Your task to perform on an android device: Open accessibility settings Image 0: 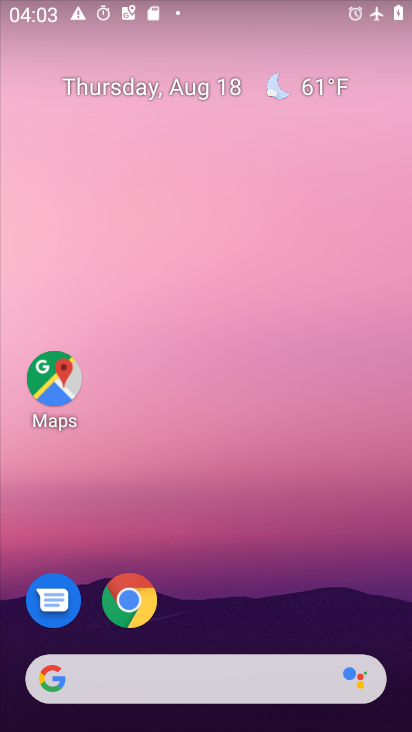
Step 0: press home button
Your task to perform on an android device: Open accessibility settings Image 1: 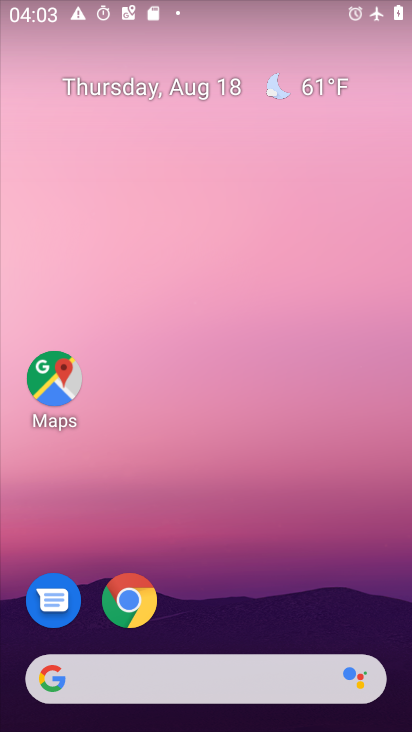
Step 1: drag from (243, 633) to (288, 0)
Your task to perform on an android device: Open accessibility settings Image 2: 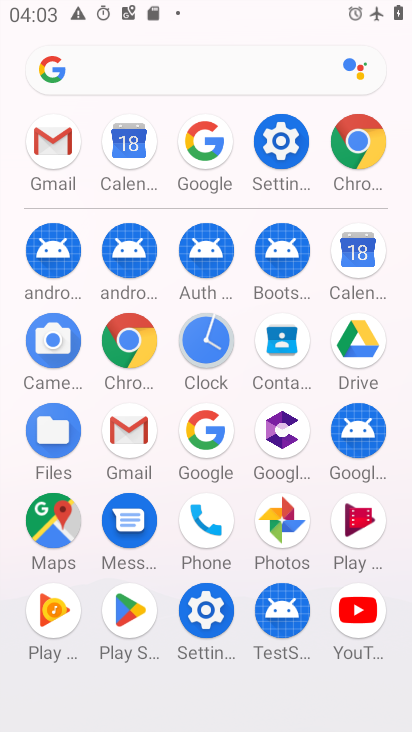
Step 2: click (277, 150)
Your task to perform on an android device: Open accessibility settings Image 3: 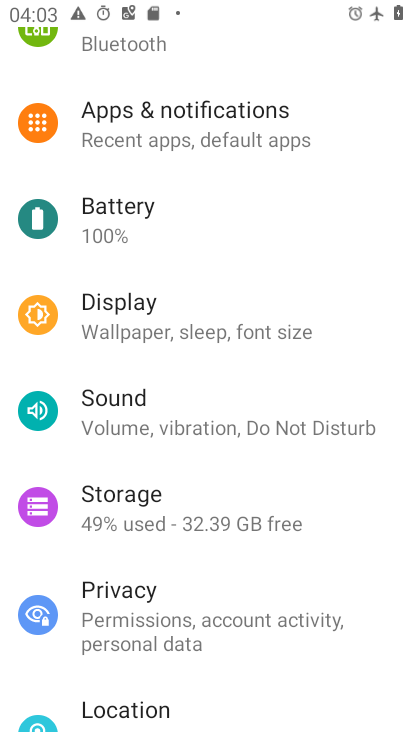
Step 3: drag from (323, 663) to (307, 178)
Your task to perform on an android device: Open accessibility settings Image 4: 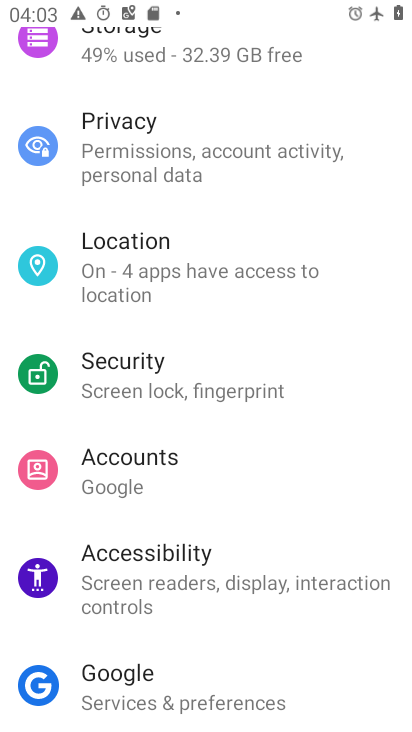
Step 4: click (146, 572)
Your task to perform on an android device: Open accessibility settings Image 5: 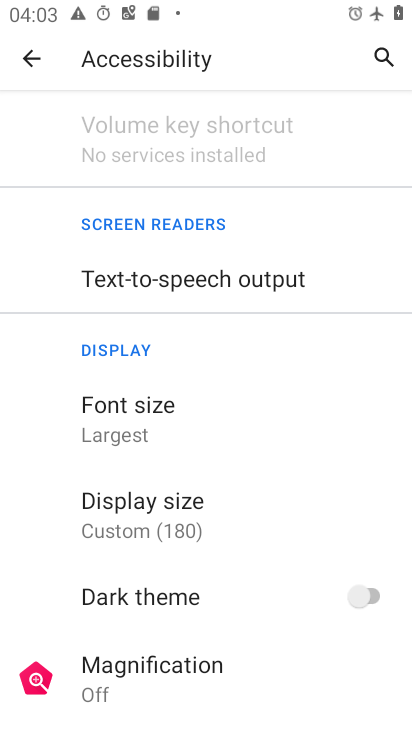
Step 5: task complete